Your task to perform on an android device: What's the weather today? Image 0: 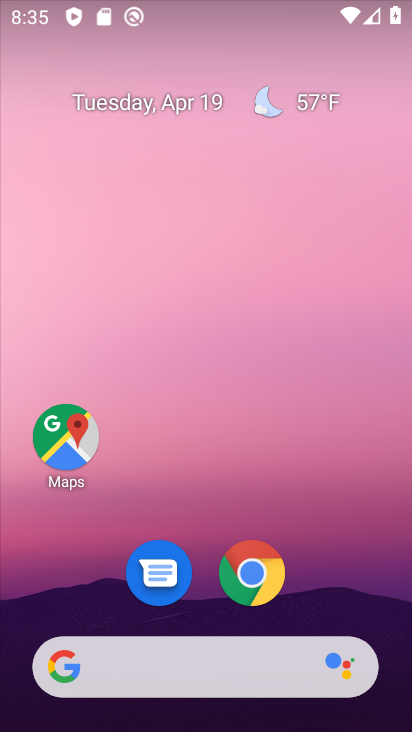
Step 0: click (305, 100)
Your task to perform on an android device: What's the weather today? Image 1: 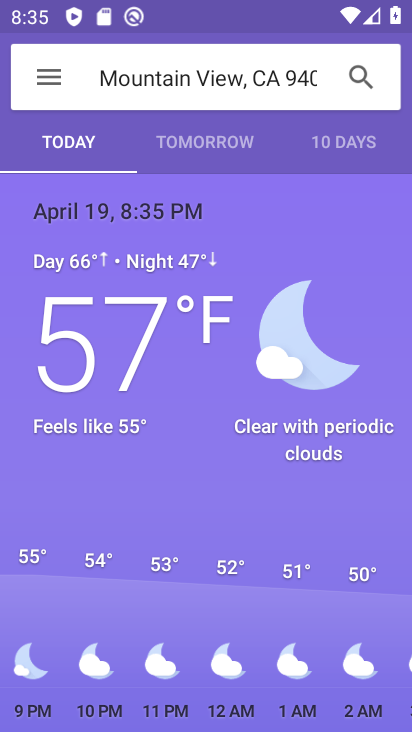
Step 1: task complete